Your task to perform on an android device: turn off sleep mode Image 0: 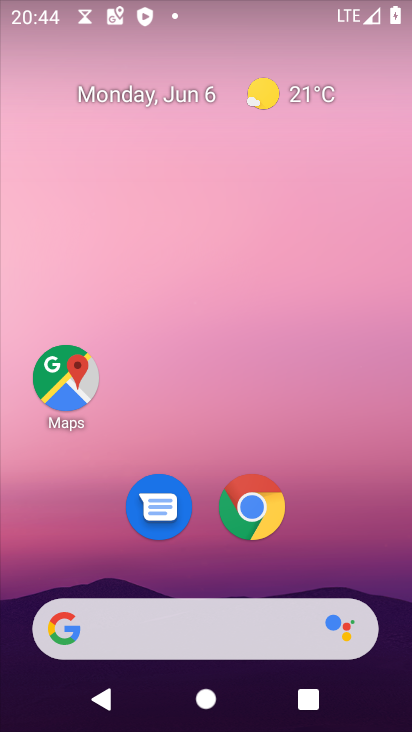
Step 0: drag from (198, 563) to (168, 3)
Your task to perform on an android device: turn off sleep mode Image 1: 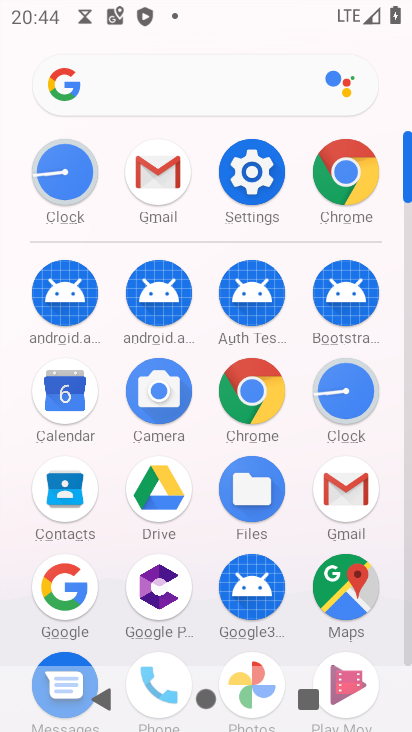
Step 1: click (249, 199)
Your task to perform on an android device: turn off sleep mode Image 2: 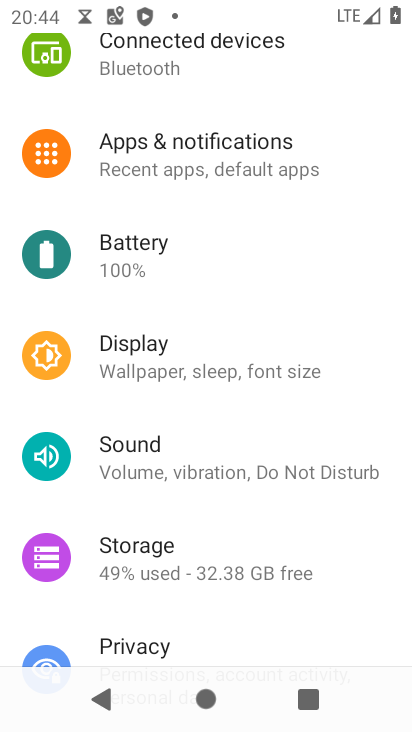
Step 2: task complete